Your task to perform on an android device: Turn on the flashlight Image 0: 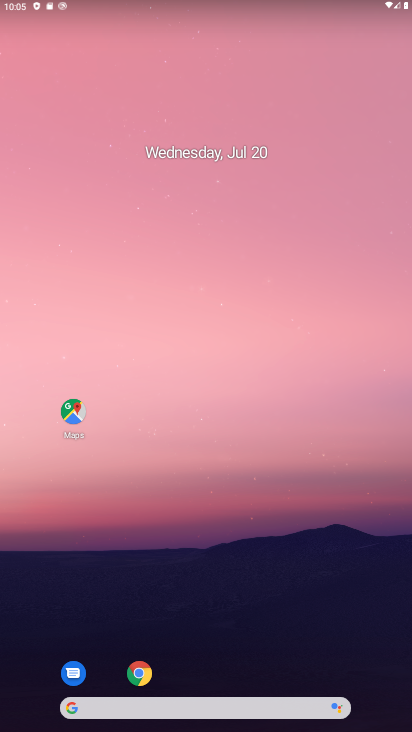
Step 0: drag from (249, 551) to (177, 13)
Your task to perform on an android device: Turn on the flashlight Image 1: 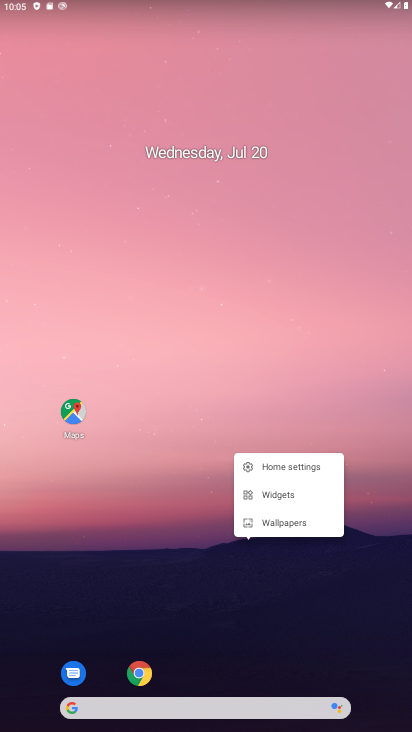
Step 1: task complete